Your task to perform on an android device: turn notification dots on Image 0: 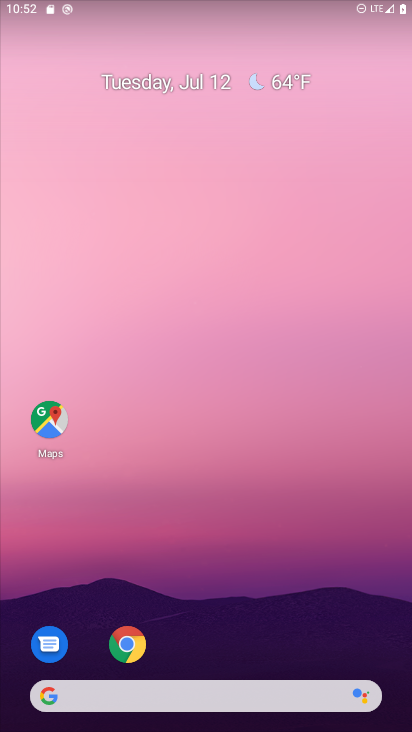
Step 0: drag from (289, 672) to (274, 137)
Your task to perform on an android device: turn notification dots on Image 1: 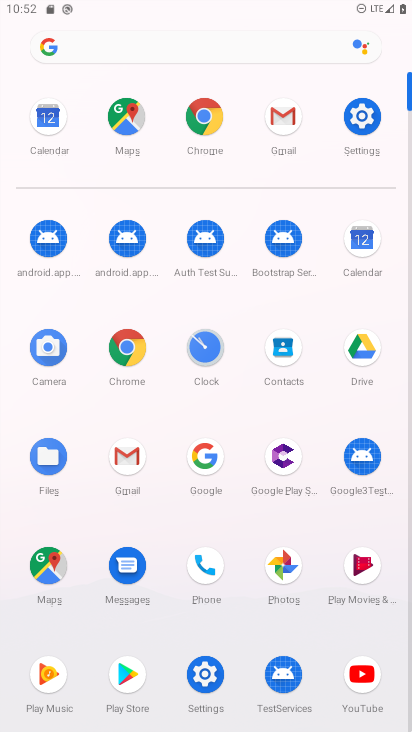
Step 1: click (353, 109)
Your task to perform on an android device: turn notification dots on Image 2: 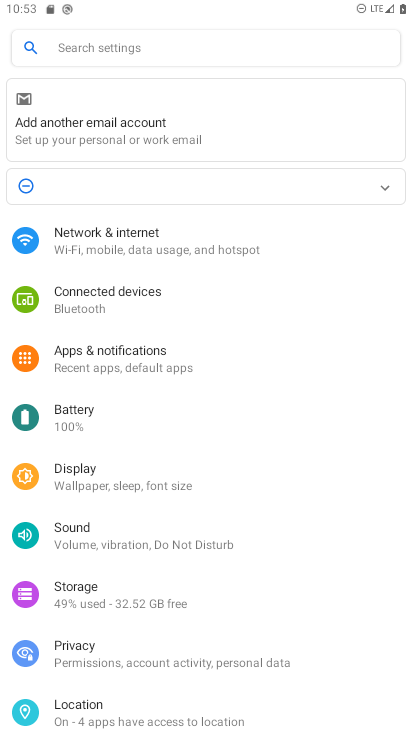
Step 2: click (144, 352)
Your task to perform on an android device: turn notification dots on Image 3: 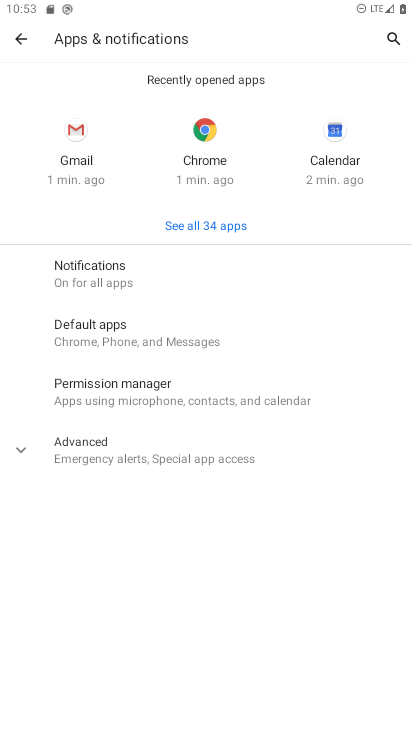
Step 3: click (127, 447)
Your task to perform on an android device: turn notification dots on Image 4: 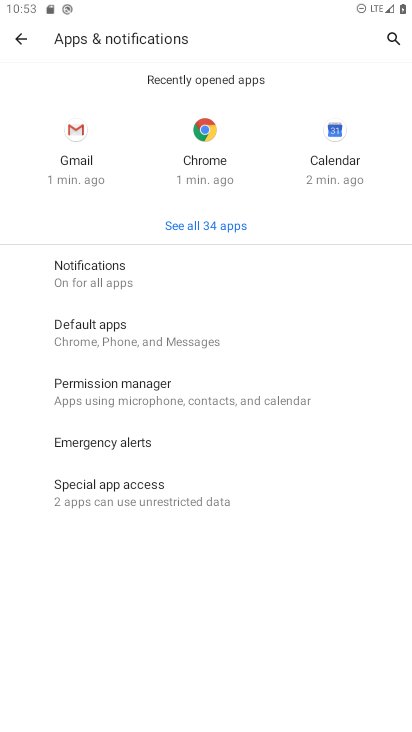
Step 4: click (161, 267)
Your task to perform on an android device: turn notification dots on Image 5: 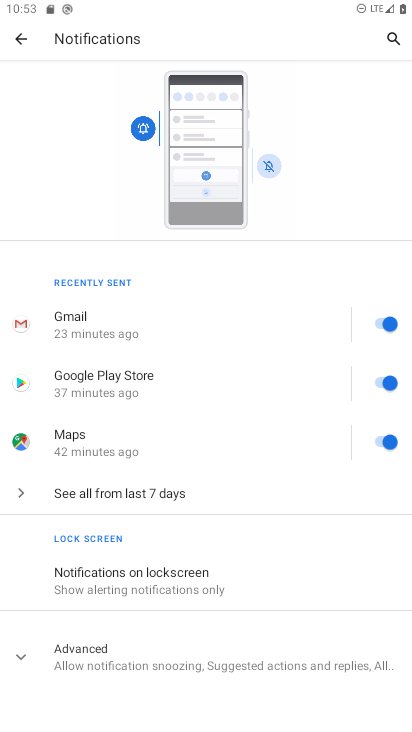
Step 5: click (206, 672)
Your task to perform on an android device: turn notification dots on Image 6: 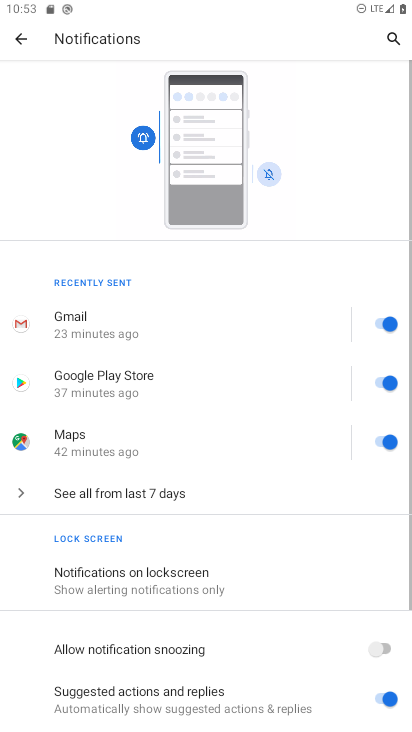
Step 6: task complete